Your task to perform on an android device: check battery use Image 0: 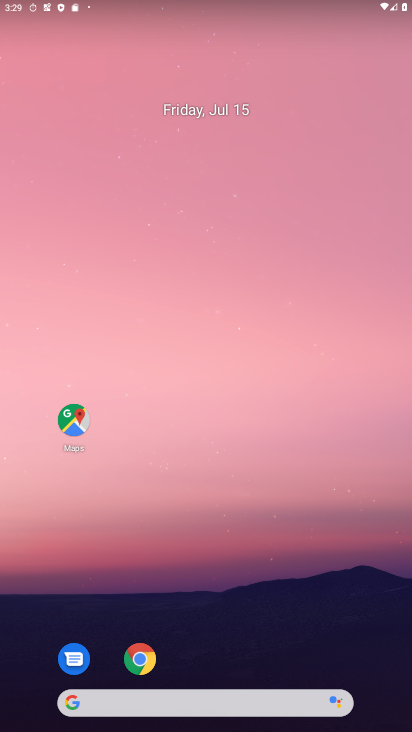
Step 0: drag from (266, 613) to (339, 6)
Your task to perform on an android device: check battery use Image 1: 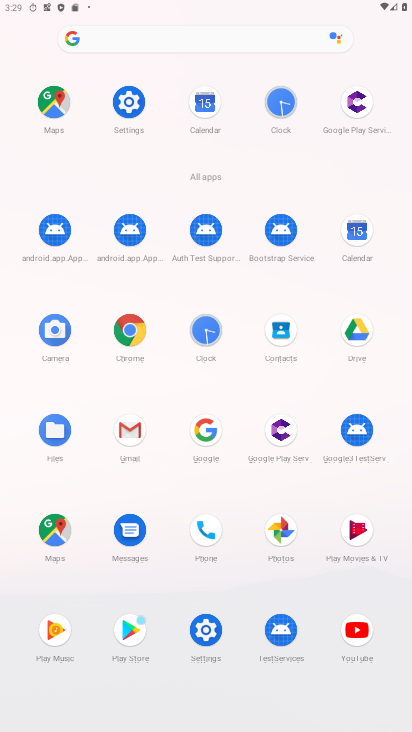
Step 1: click (130, 94)
Your task to perform on an android device: check battery use Image 2: 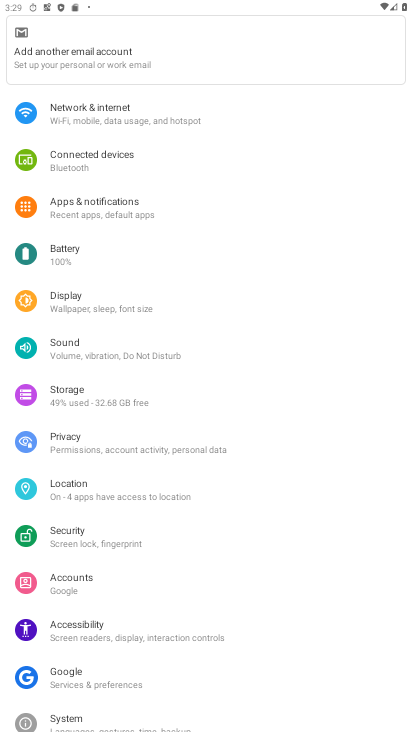
Step 2: click (100, 260)
Your task to perform on an android device: check battery use Image 3: 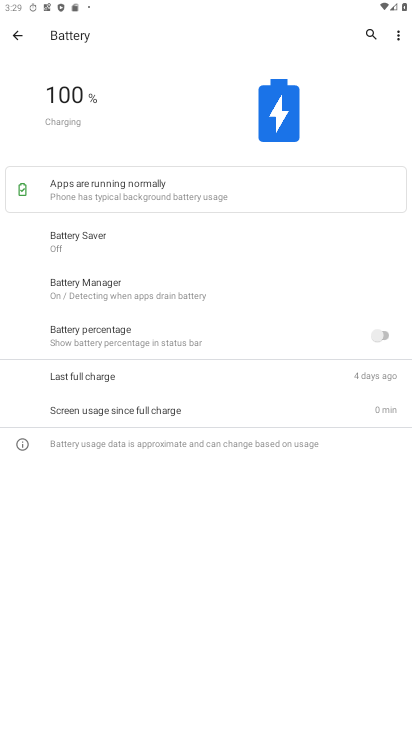
Step 3: click (399, 31)
Your task to perform on an android device: check battery use Image 4: 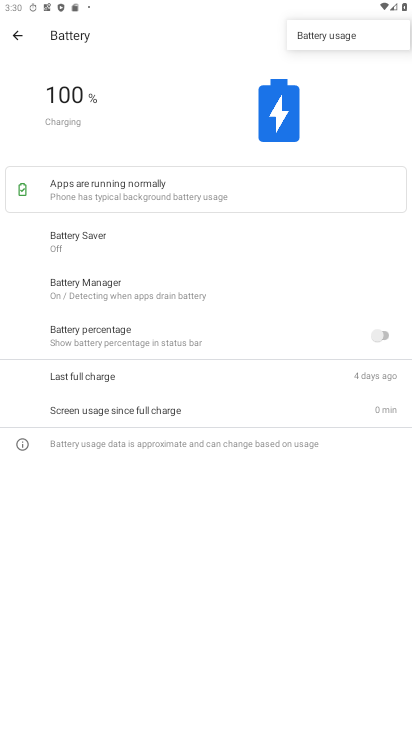
Step 4: click (351, 32)
Your task to perform on an android device: check battery use Image 5: 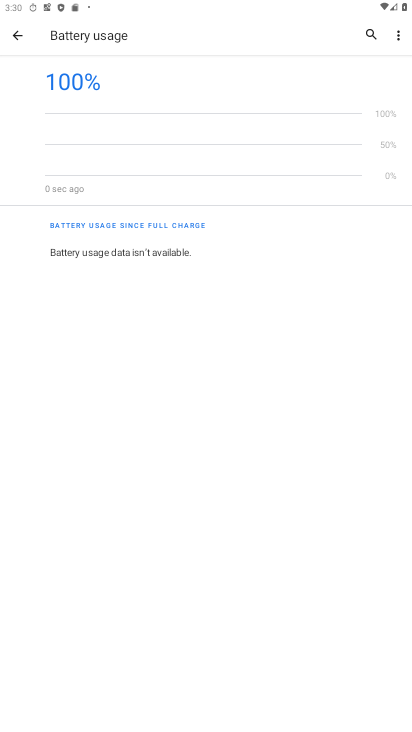
Step 5: task complete